Your task to perform on an android device: open sync settings in chrome Image 0: 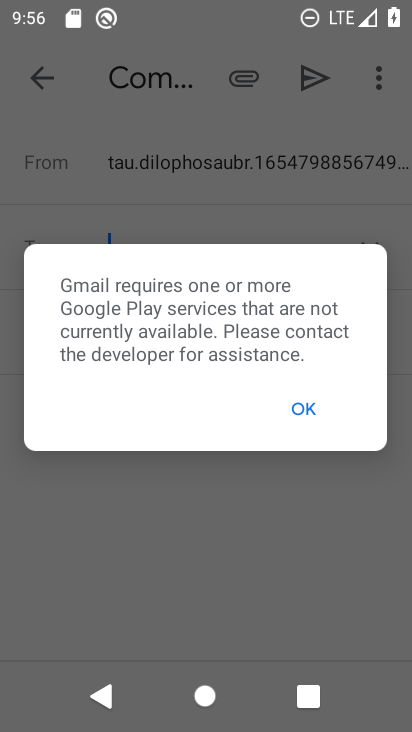
Step 0: press back button
Your task to perform on an android device: open sync settings in chrome Image 1: 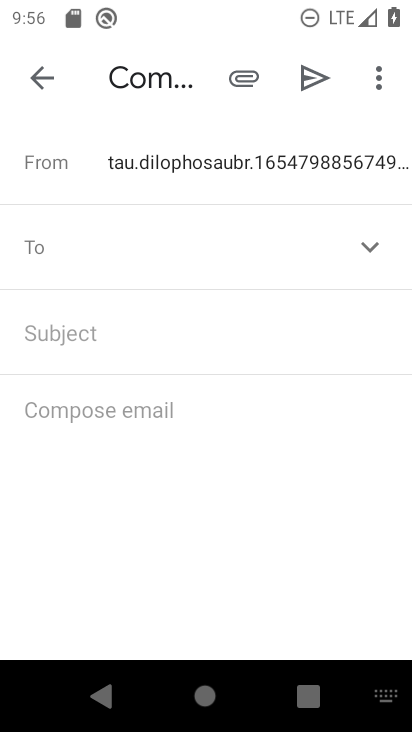
Step 1: press back button
Your task to perform on an android device: open sync settings in chrome Image 2: 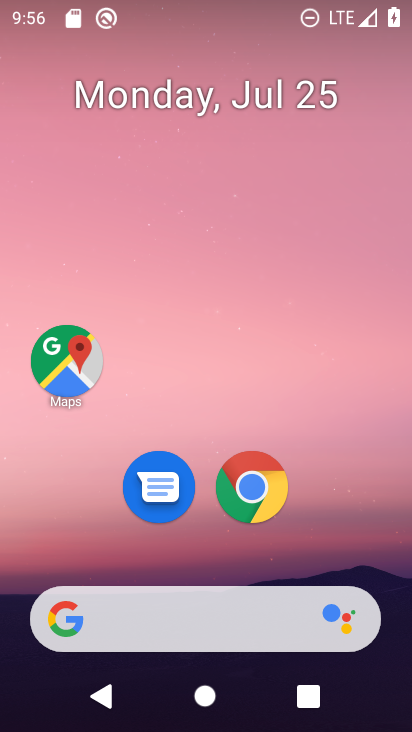
Step 2: click (243, 496)
Your task to perform on an android device: open sync settings in chrome Image 3: 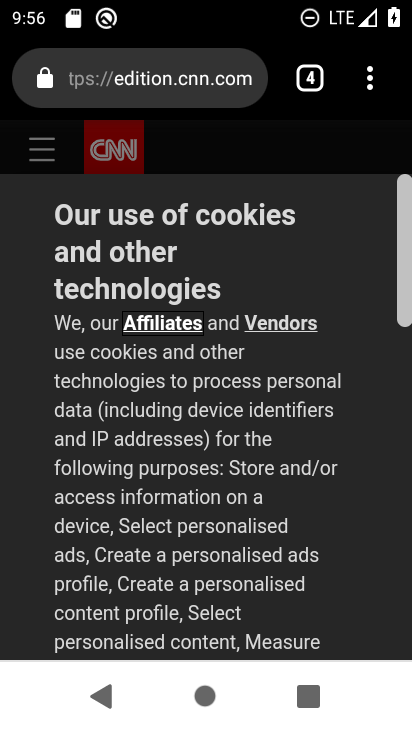
Step 3: drag from (369, 73) to (106, 539)
Your task to perform on an android device: open sync settings in chrome Image 4: 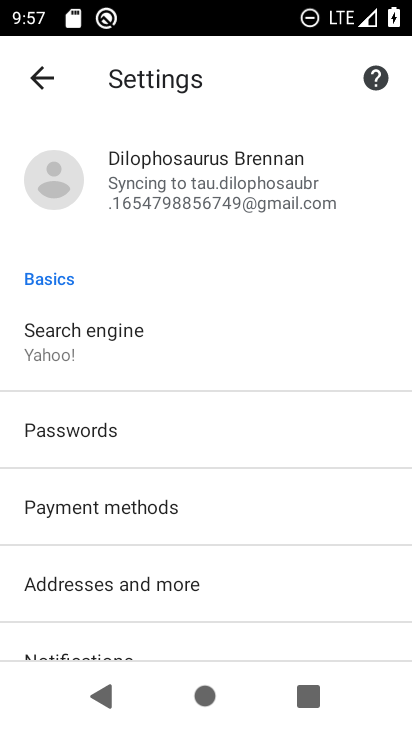
Step 4: click (217, 203)
Your task to perform on an android device: open sync settings in chrome Image 5: 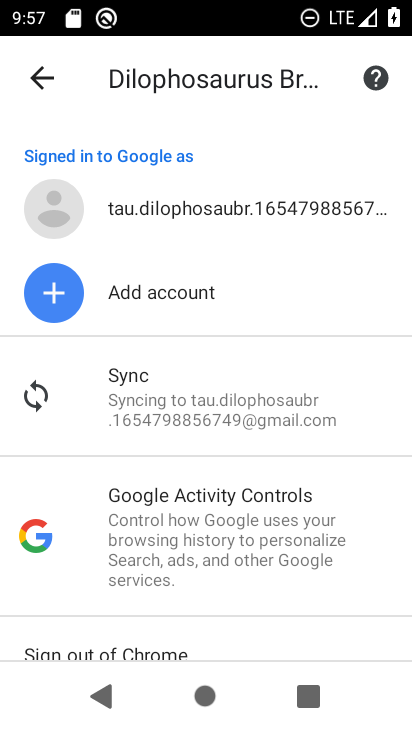
Step 5: task complete